Your task to perform on an android device: turn off picture-in-picture Image 0: 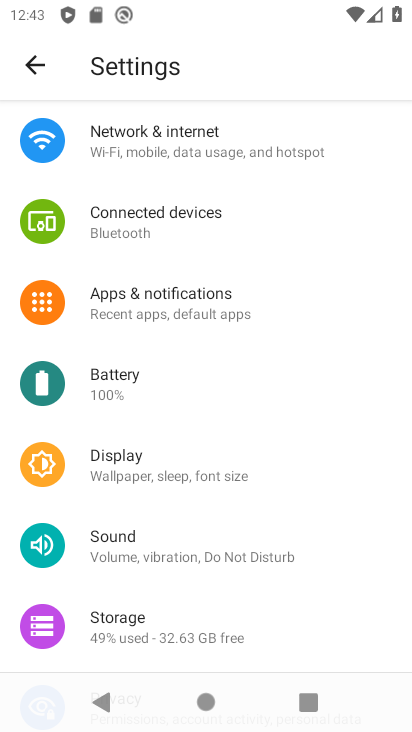
Step 0: click (192, 305)
Your task to perform on an android device: turn off picture-in-picture Image 1: 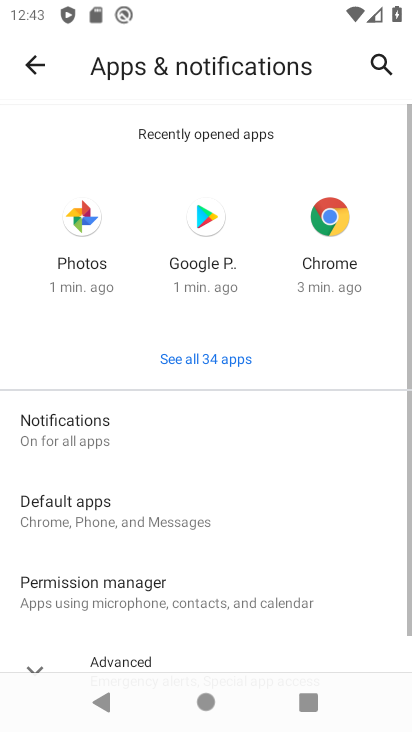
Step 1: drag from (221, 587) to (234, 332)
Your task to perform on an android device: turn off picture-in-picture Image 2: 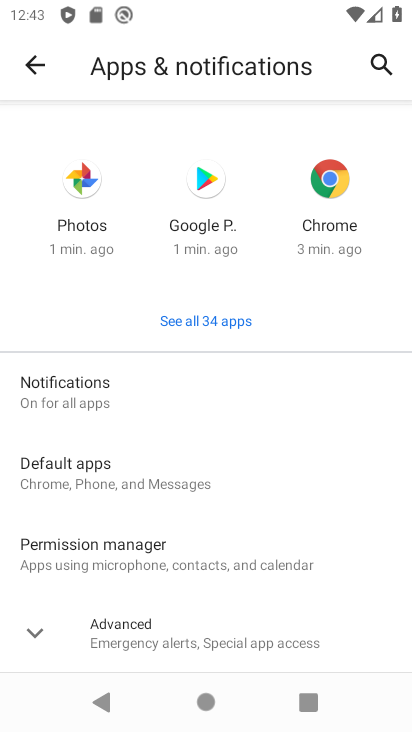
Step 2: click (41, 628)
Your task to perform on an android device: turn off picture-in-picture Image 3: 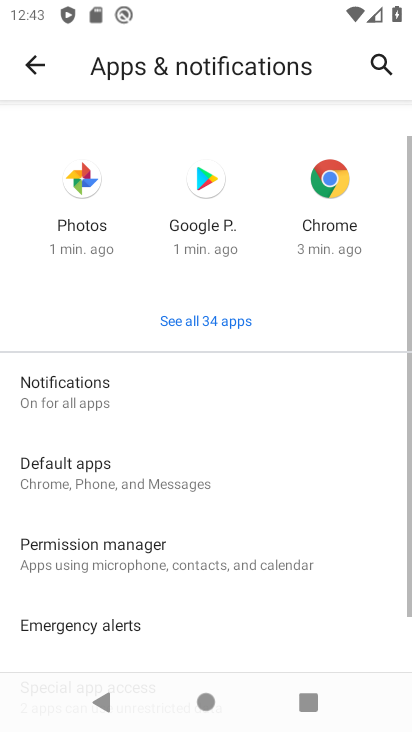
Step 3: drag from (106, 631) to (103, 391)
Your task to perform on an android device: turn off picture-in-picture Image 4: 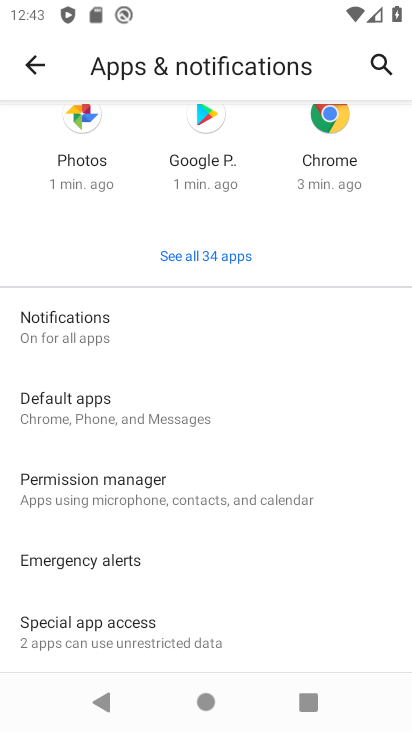
Step 4: click (230, 637)
Your task to perform on an android device: turn off picture-in-picture Image 5: 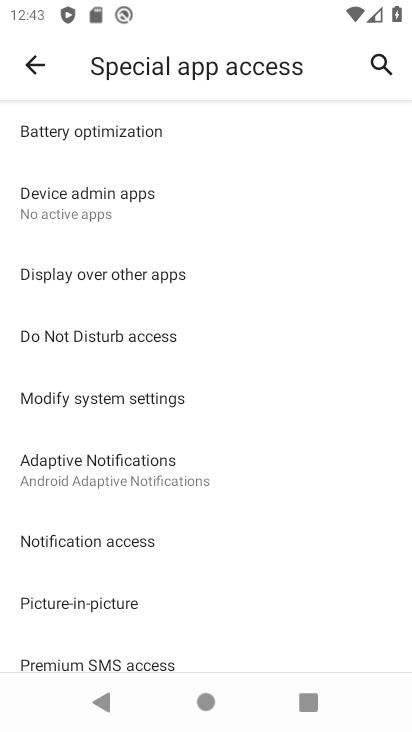
Step 5: click (187, 605)
Your task to perform on an android device: turn off picture-in-picture Image 6: 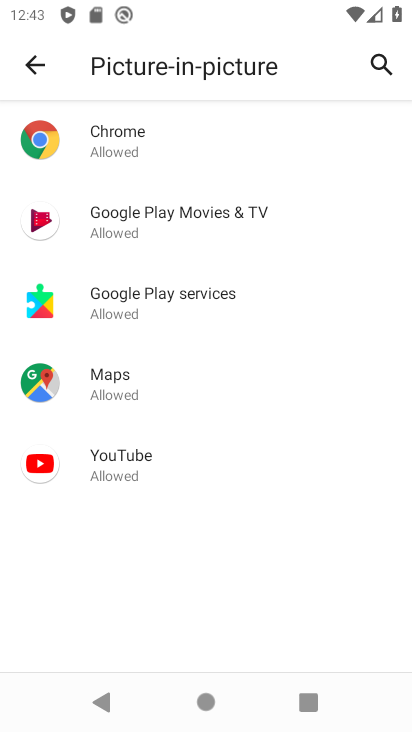
Step 6: click (306, 144)
Your task to perform on an android device: turn off picture-in-picture Image 7: 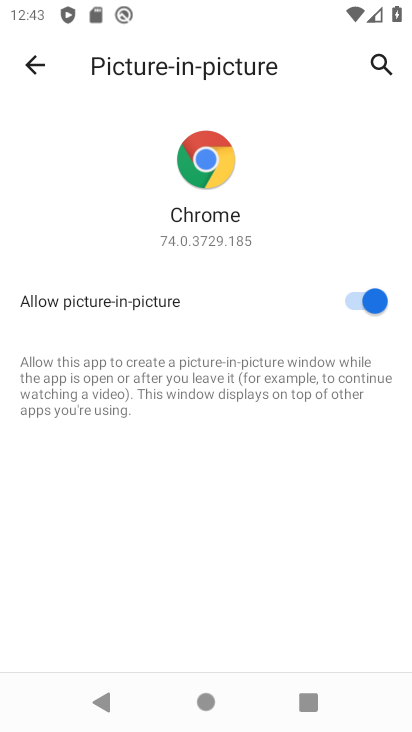
Step 7: click (356, 298)
Your task to perform on an android device: turn off picture-in-picture Image 8: 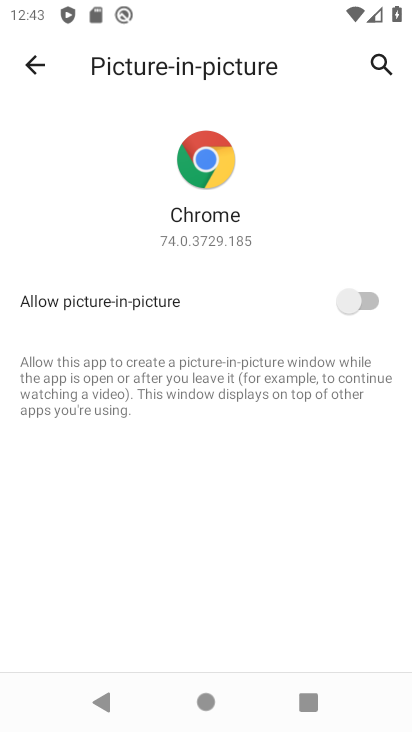
Step 8: task complete